Your task to perform on an android device: turn notification dots off Image 0: 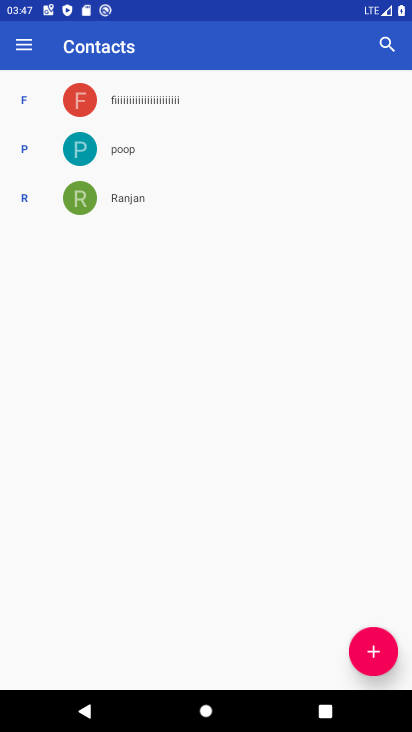
Step 0: press home button
Your task to perform on an android device: turn notification dots off Image 1: 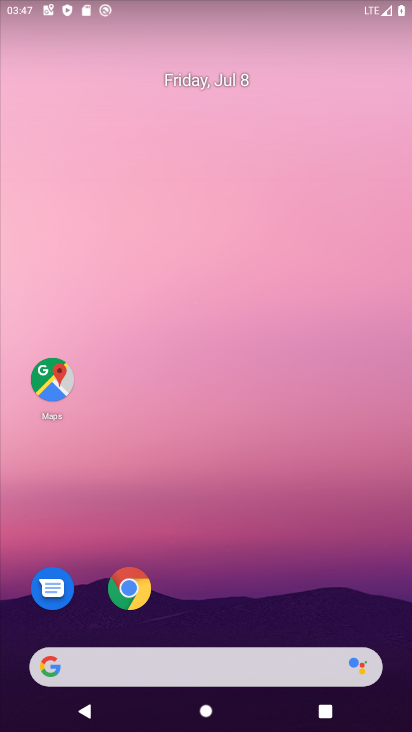
Step 1: drag from (228, 611) to (186, 43)
Your task to perform on an android device: turn notification dots off Image 2: 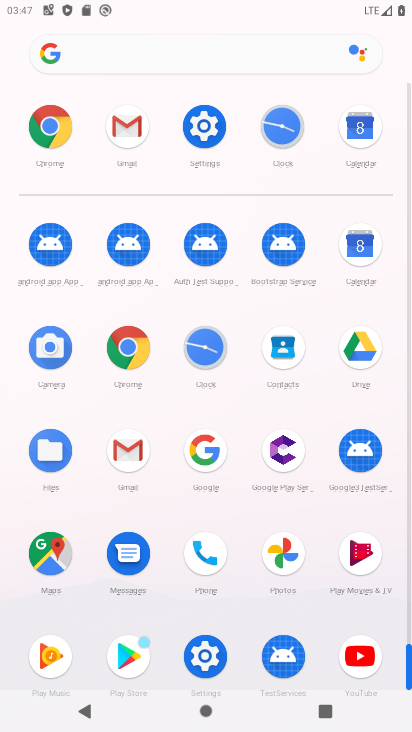
Step 2: click (202, 120)
Your task to perform on an android device: turn notification dots off Image 3: 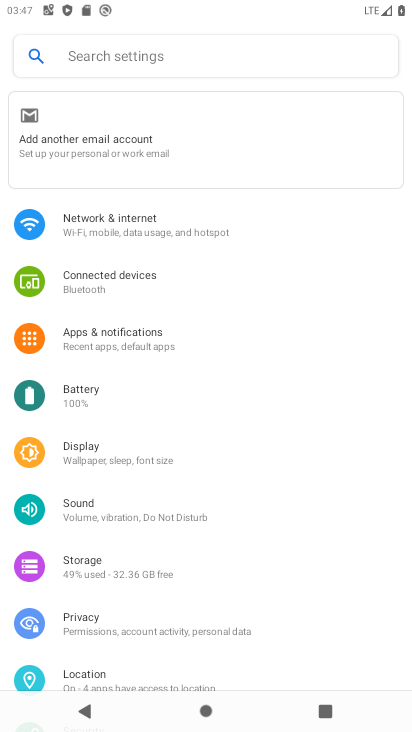
Step 3: click (111, 344)
Your task to perform on an android device: turn notification dots off Image 4: 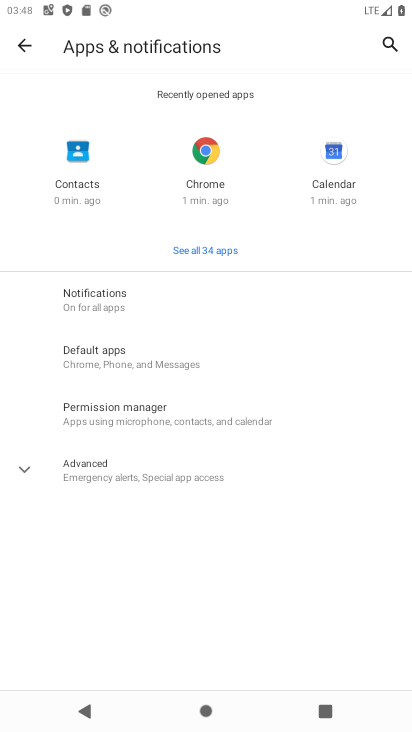
Step 4: click (91, 300)
Your task to perform on an android device: turn notification dots off Image 5: 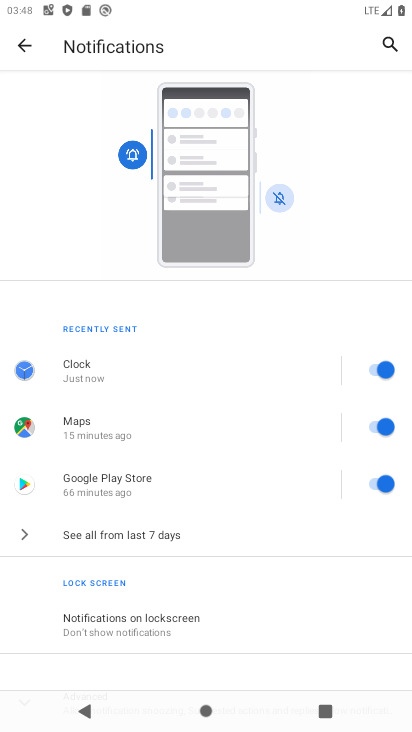
Step 5: click (117, 618)
Your task to perform on an android device: turn notification dots off Image 6: 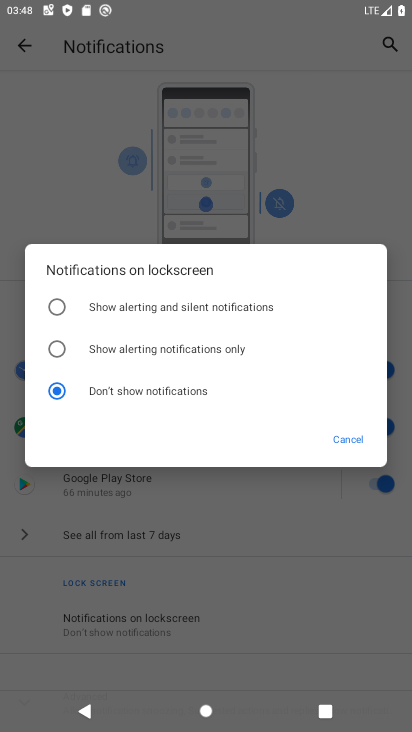
Step 6: press back button
Your task to perform on an android device: turn notification dots off Image 7: 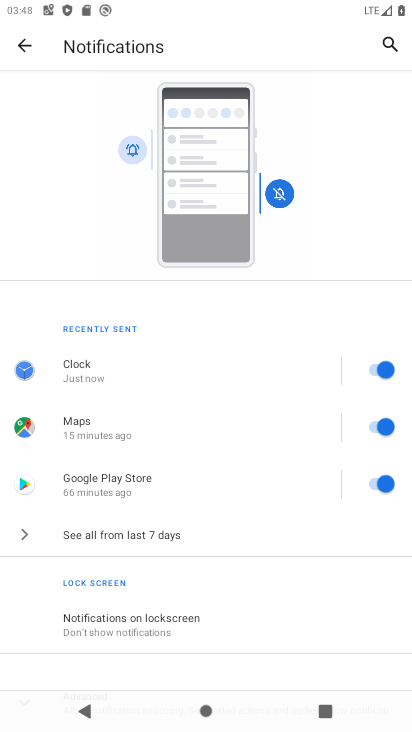
Step 7: drag from (263, 591) to (253, 331)
Your task to perform on an android device: turn notification dots off Image 8: 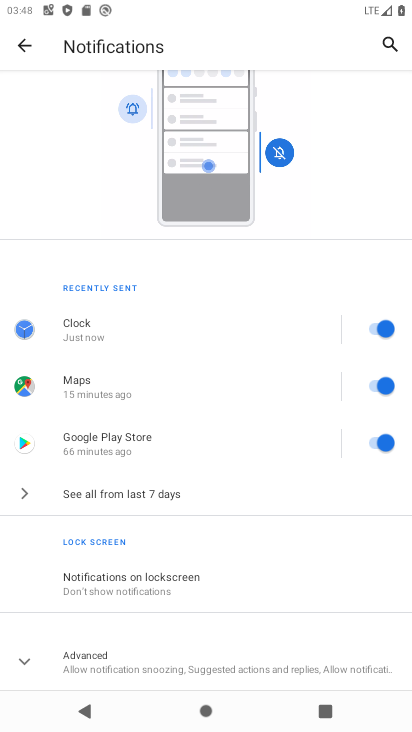
Step 8: click (88, 654)
Your task to perform on an android device: turn notification dots off Image 9: 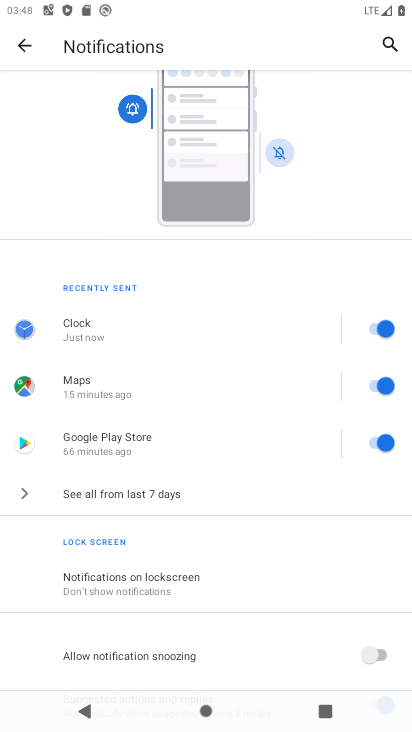
Step 9: drag from (197, 621) to (197, 358)
Your task to perform on an android device: turn notification dots off Image 10: 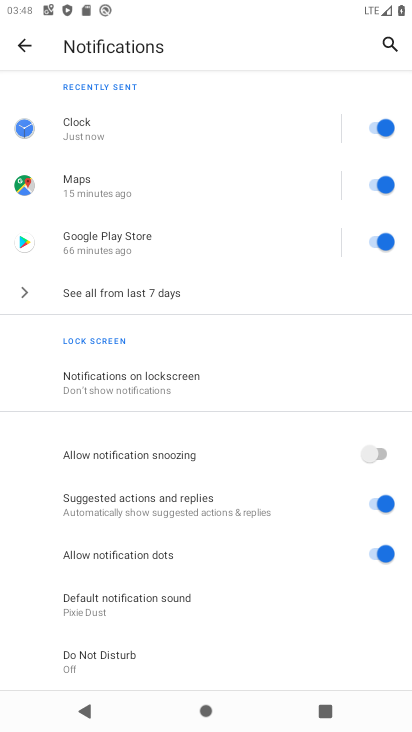
Step 10: click (369, 560)
Your task to perform on an android device: turn notification dots off Image 11: 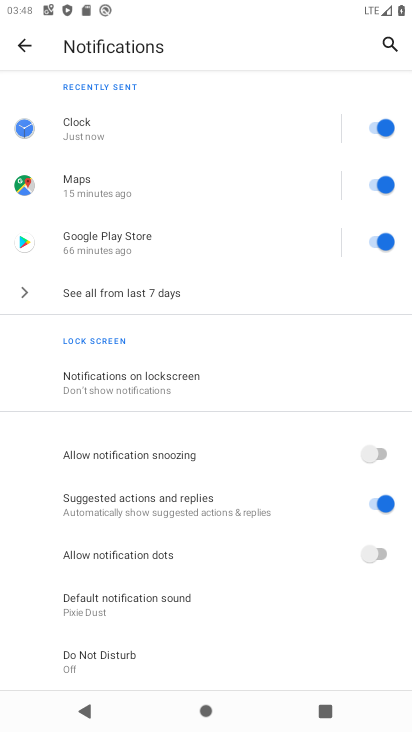
Step 11: task complete